Your task to perform on an android device: Open Google Chrome Image 0: 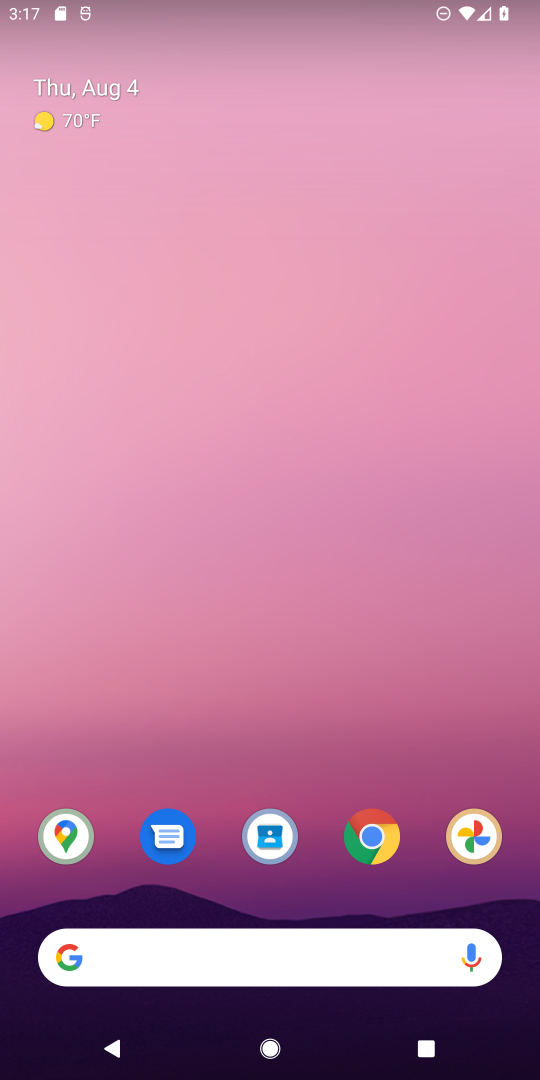
Step 0: press home button
Your task to perform on an android device: Open Google Chrome Image 1: 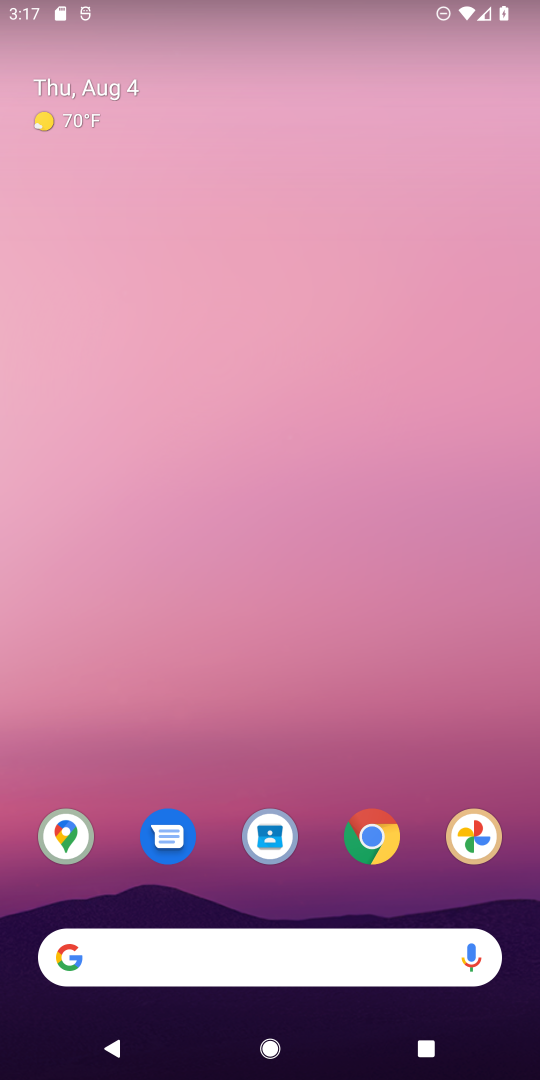
Step 1: press home button
Your task to perform on an android device: Open Google Chrome Image 2: 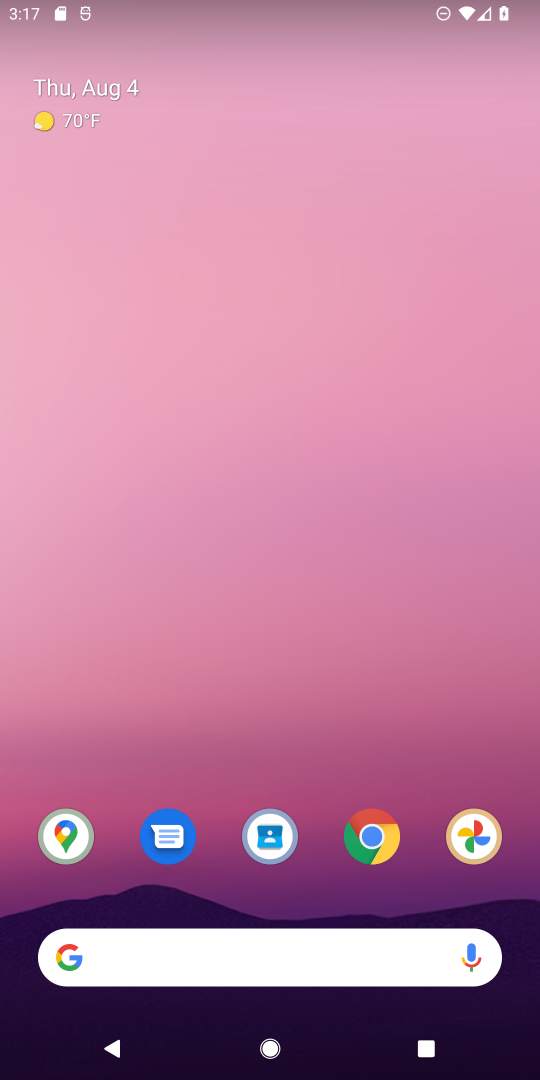
Step 2: click (387, 835)
Your task to perform on an android device: Open Google Chrome Image 3: 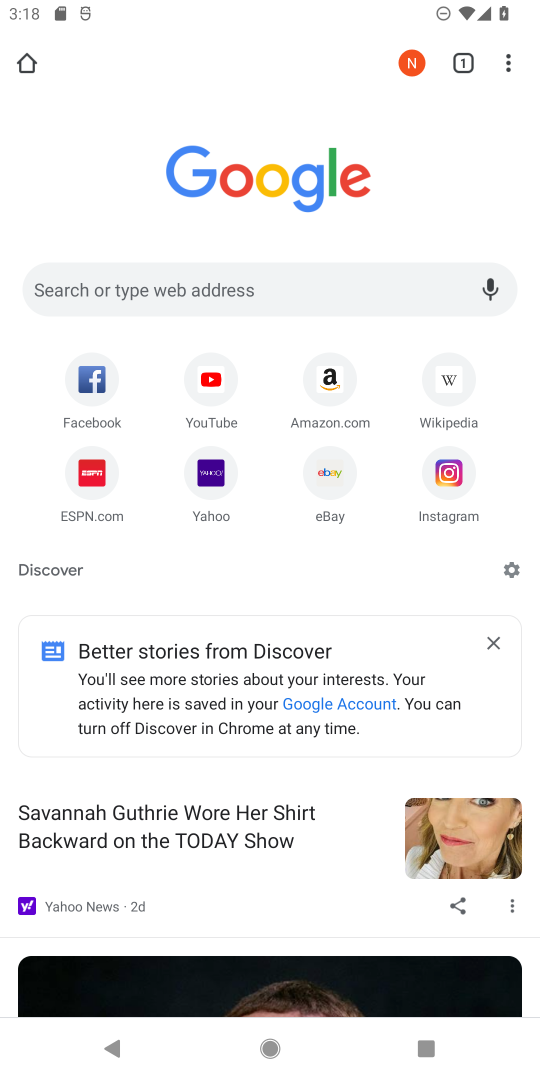
Step 3: task complete